Your task to perform on an android device: open a bookmark in the chrome app Image 0: 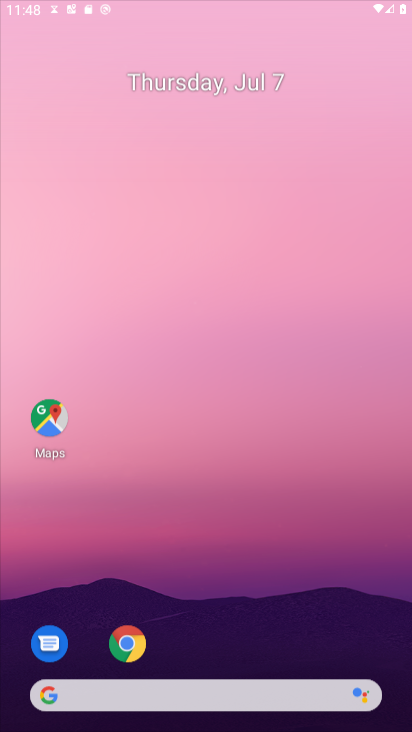
Step 0: press home button
Your task to perform on an android device: open a bookmark in the chrome app Image 1: 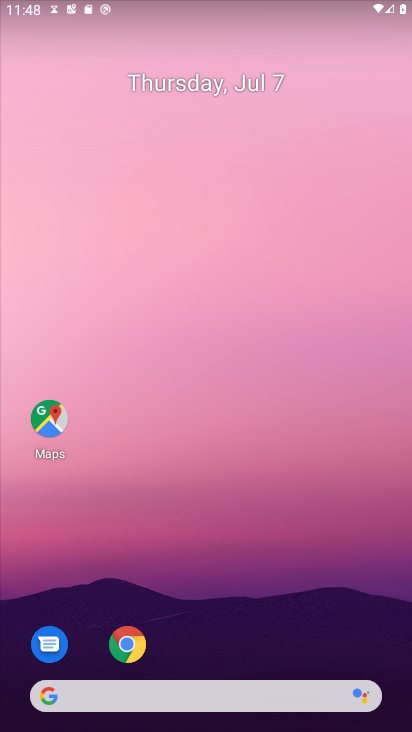
Step 1: click (133, 655)
Your task to perform on an android device: open a bookmark in the chrome app Image 2: 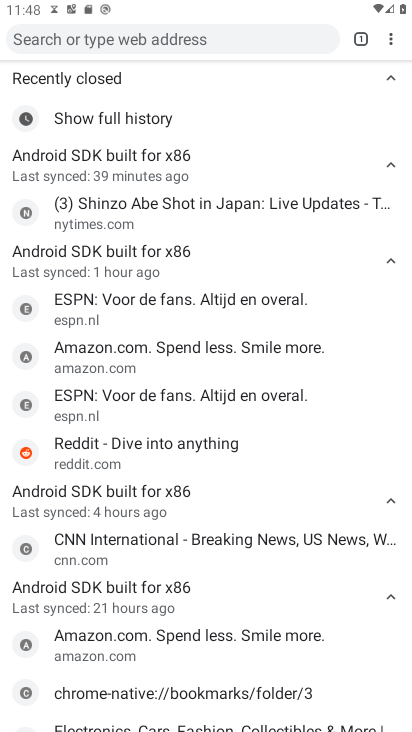
Step 2: task complete